Your task to perform on an android device: Open Youtube and go to "Your channel" Image 0: 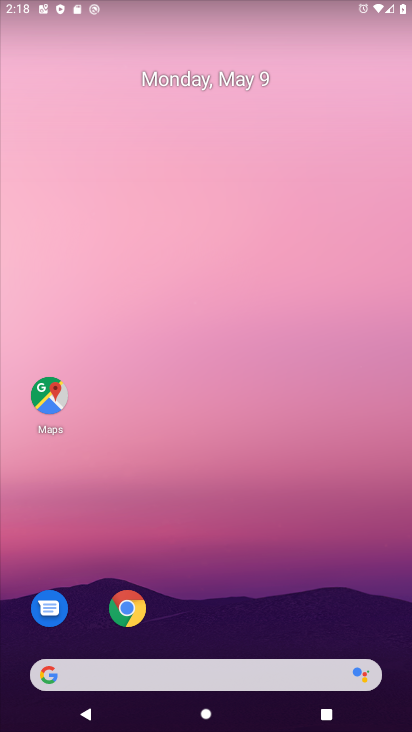
Step 0: drag from (175, 621) to (212, 208)
Your task to perform on an android device: Open Youtube and go to "Your channel" Image 1: 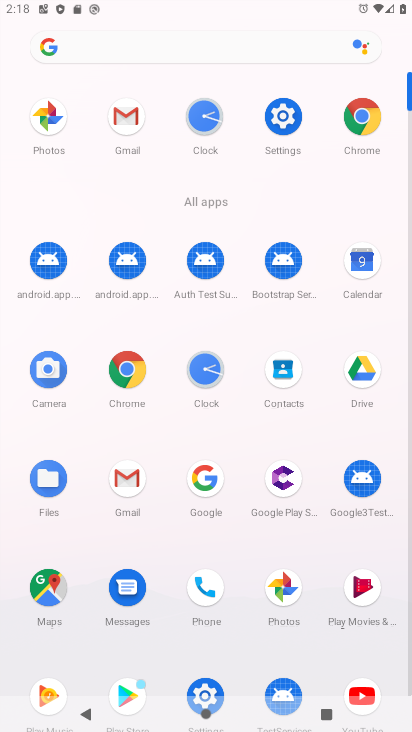
Step 1: click (356, 686)
Your task to perform on an android device: Open Youtube and go to "Your channel" Image 2: 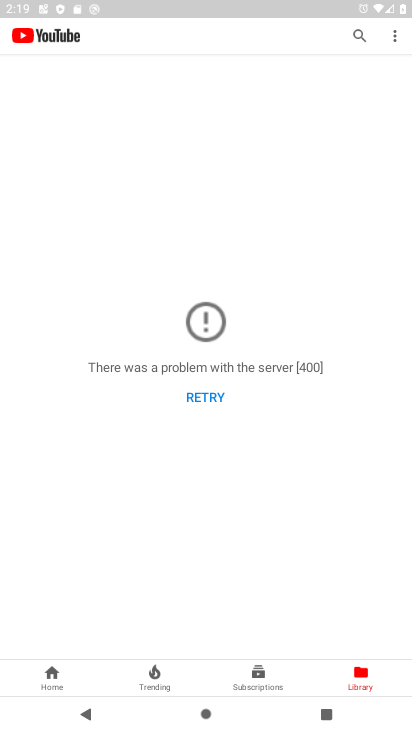
Step 2: task complete